Your task to perform on an android device: turn off airplane mode Image 0: 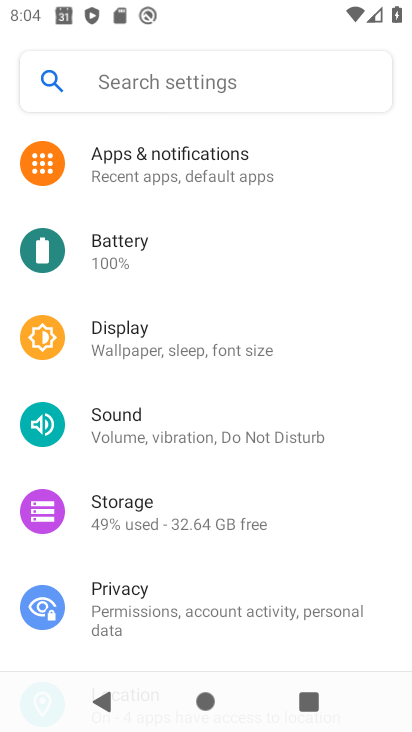
Step 0: drag from (204, 249) to (173, 577)
Your task to perform on an android device: turn off airplane mode Image 1: 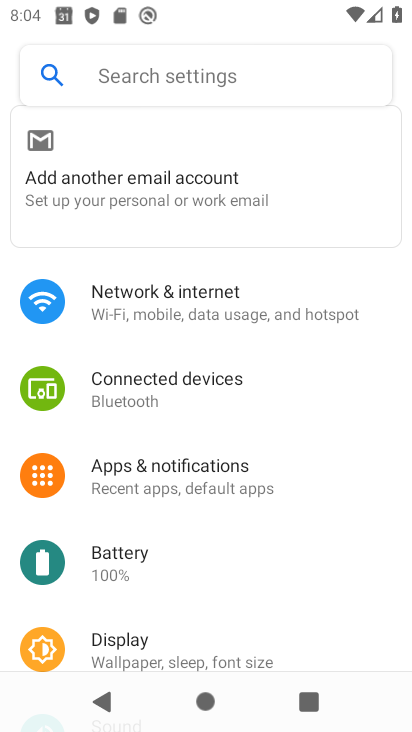
Step 1: click (203, 304)
Your task to perform on an android device: turn off airplane mode Image 2: 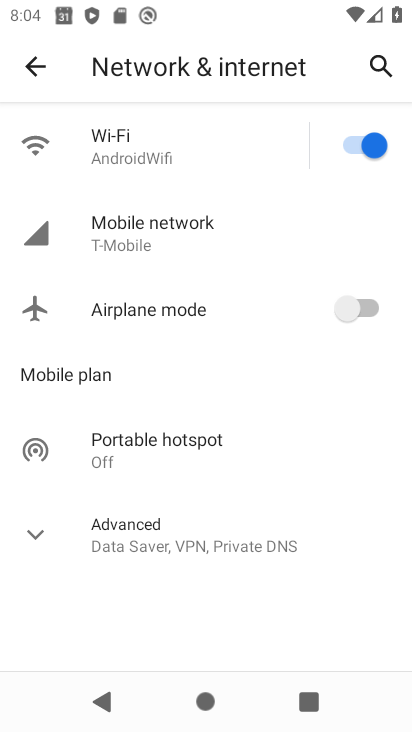
Step 2: task complete